Your task to perform on an android device: toggle location history Image 0: 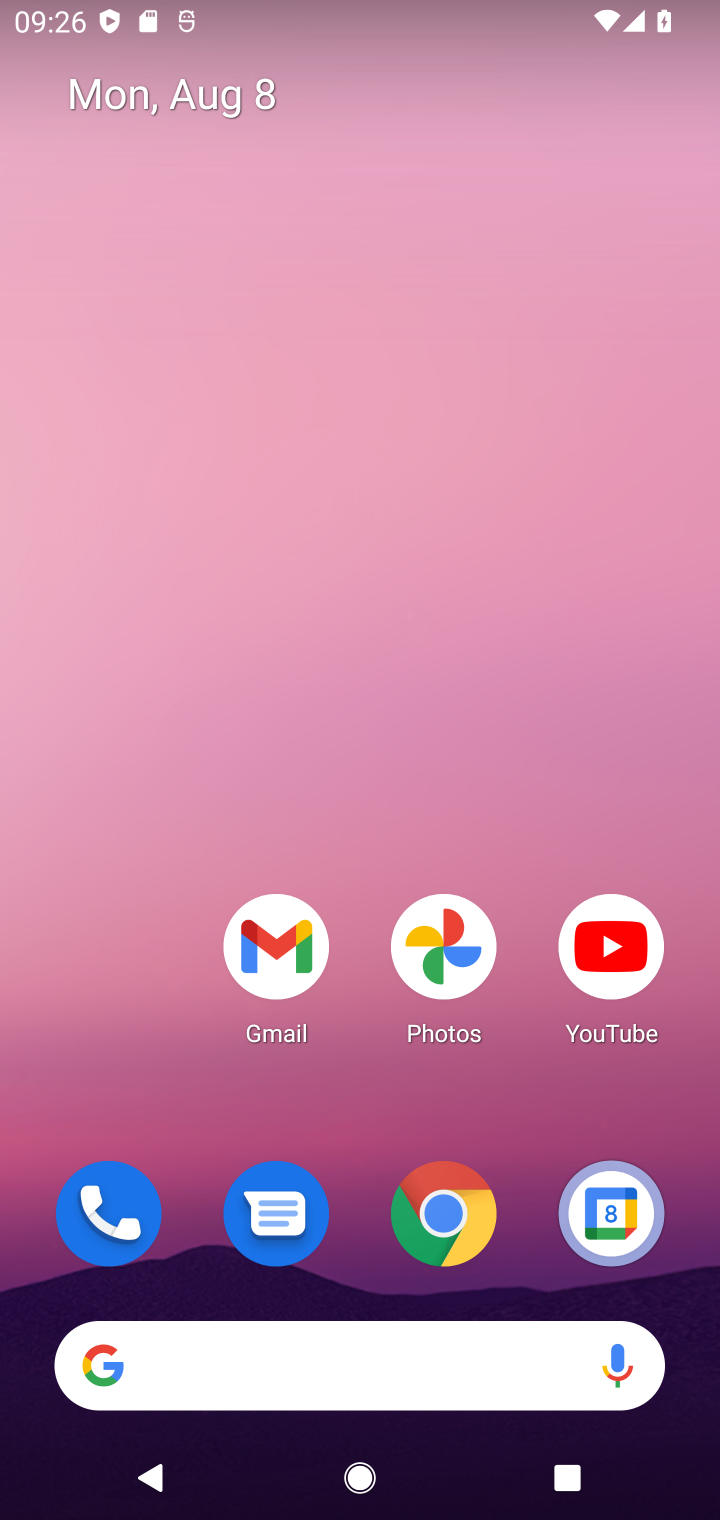
Step 0: drag from (415, 1084) to (272, 239)
Your task to perform on an android device: toggle location history Image 1: 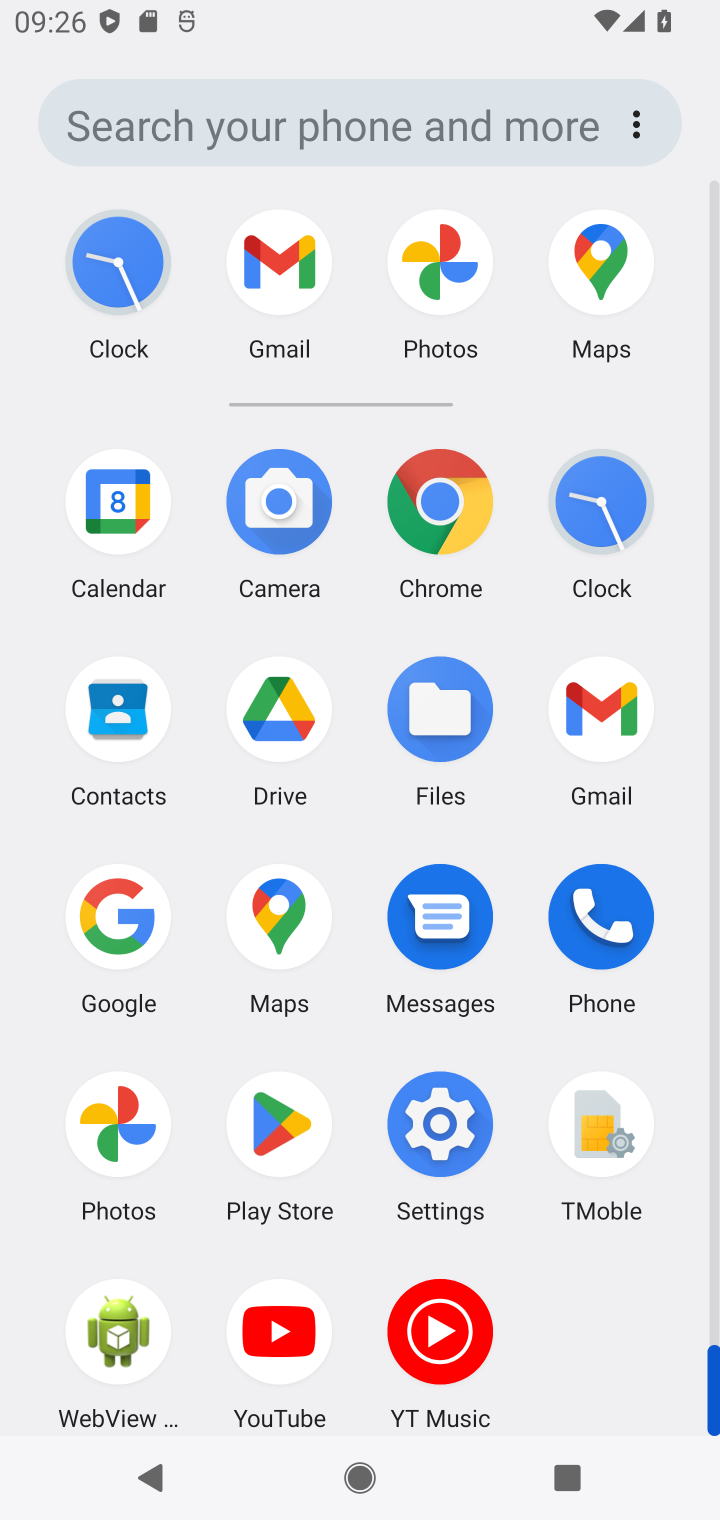
Step 1: click (472, 1142)
Your task to perform on an android device: toggle location history Image 2: 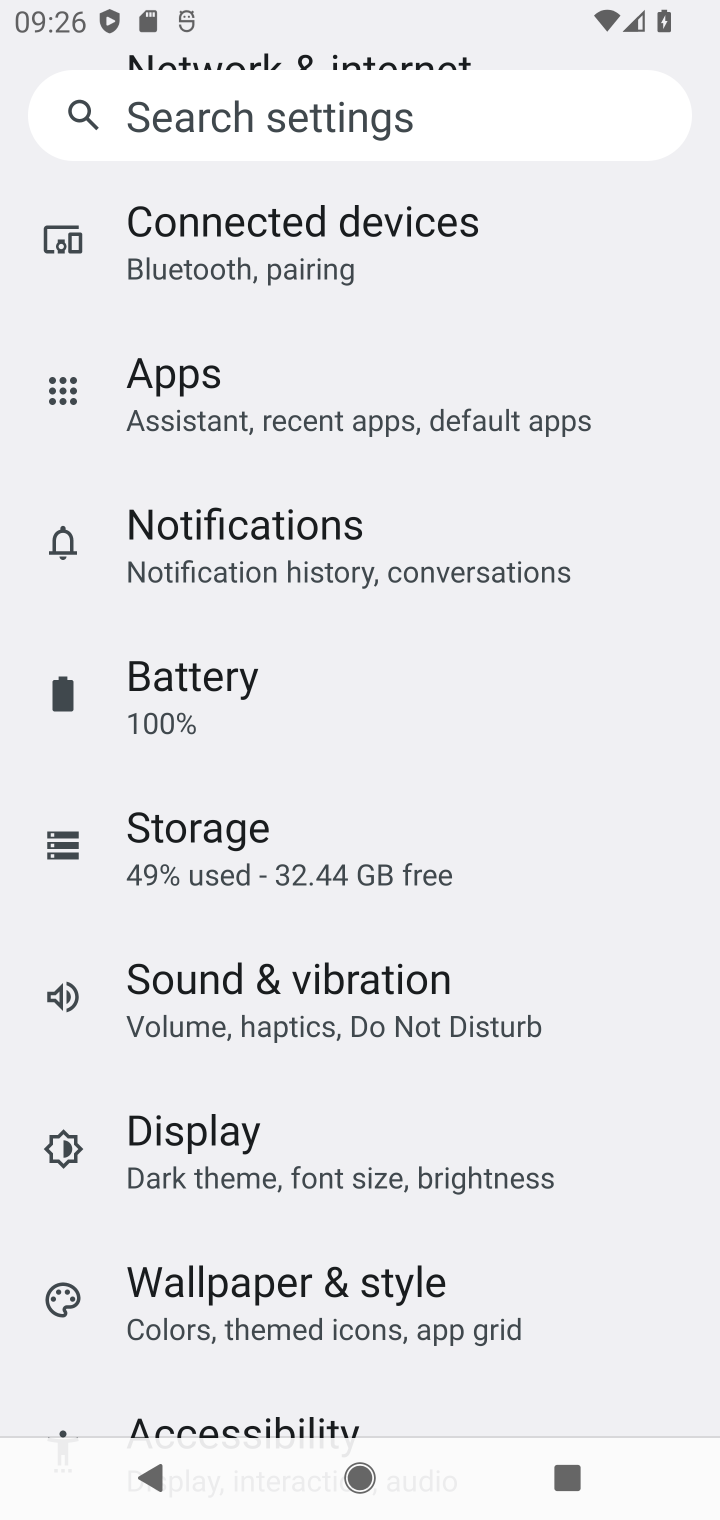
Step 2: drag from (282, 761) to (424, 131)
Your task to perform on an android device: toggle location history Image 3: 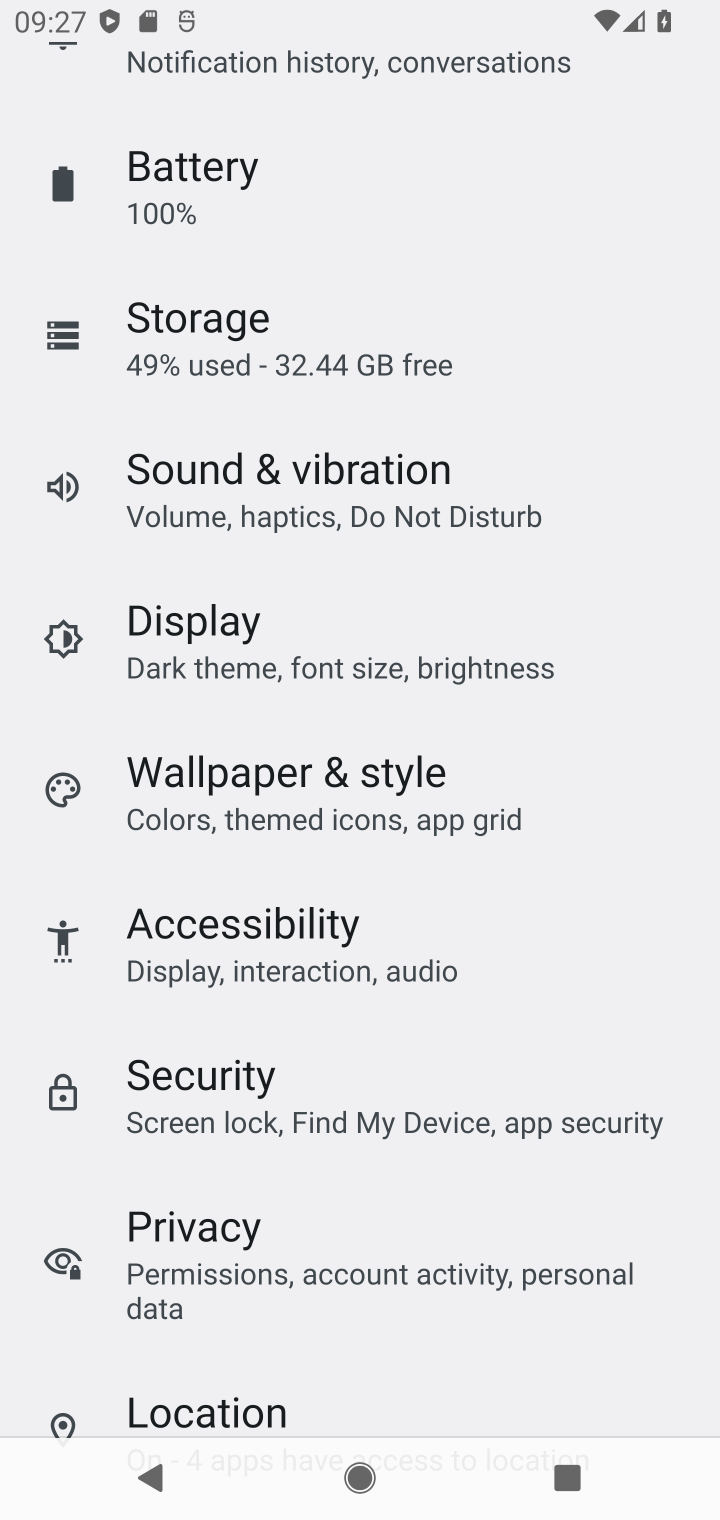
Step 3: drag from (326, 1167) to (434, 386)
Your task to perform on an android device: toggle location history Image 4: 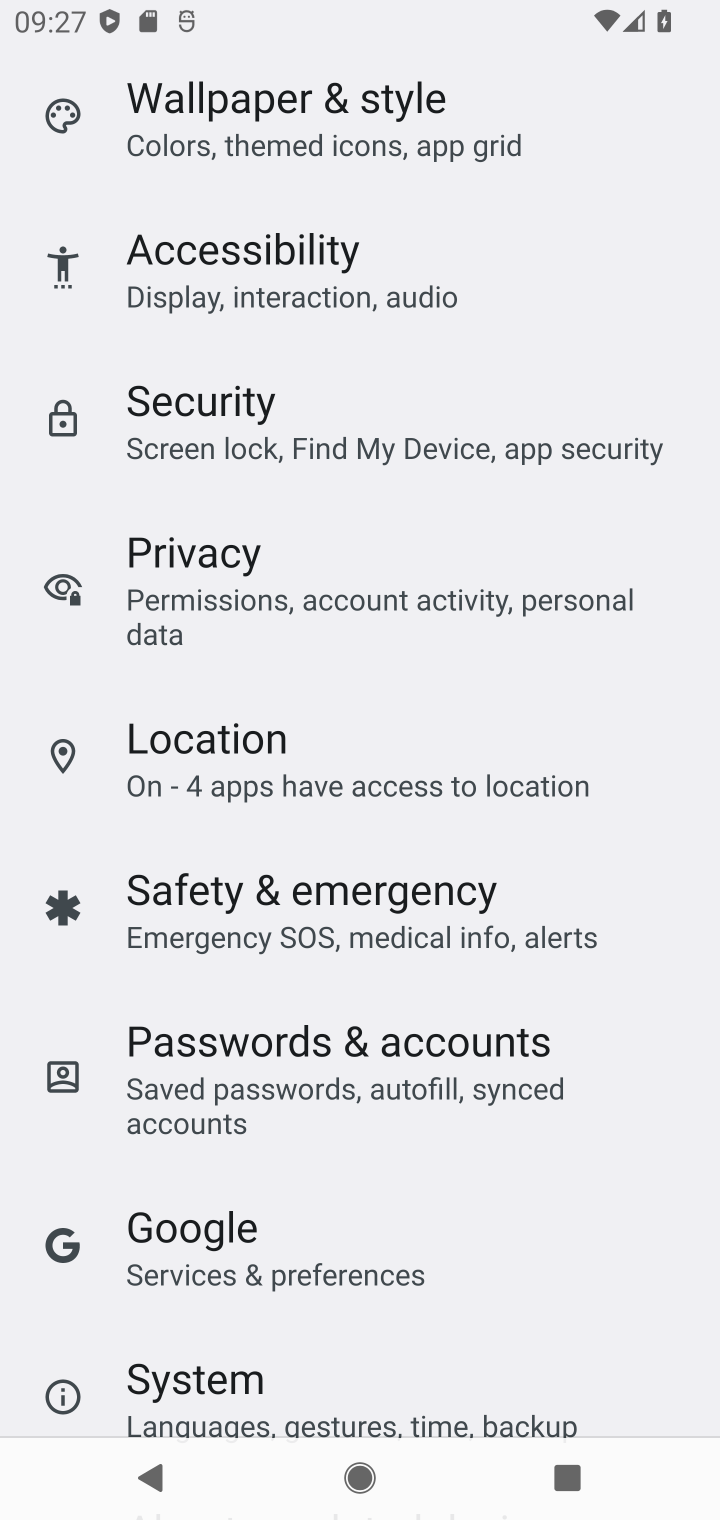
Step 4: click (314, 772)
Your task to perform on an android device: toggle location history Image 5: 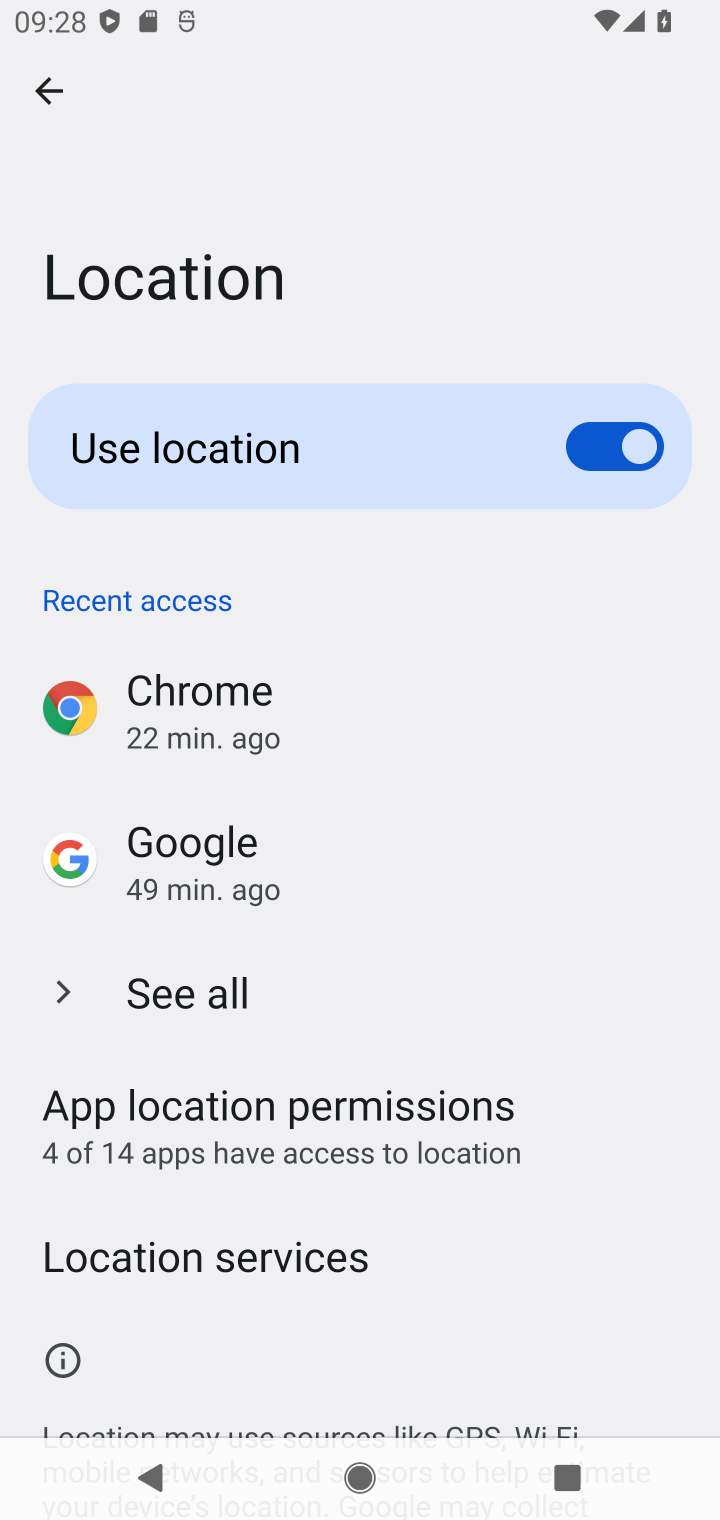
Step 5: drag from (215, 1166) to (235, 354)
Your task to perform on an android device: toggle location history Image 6: 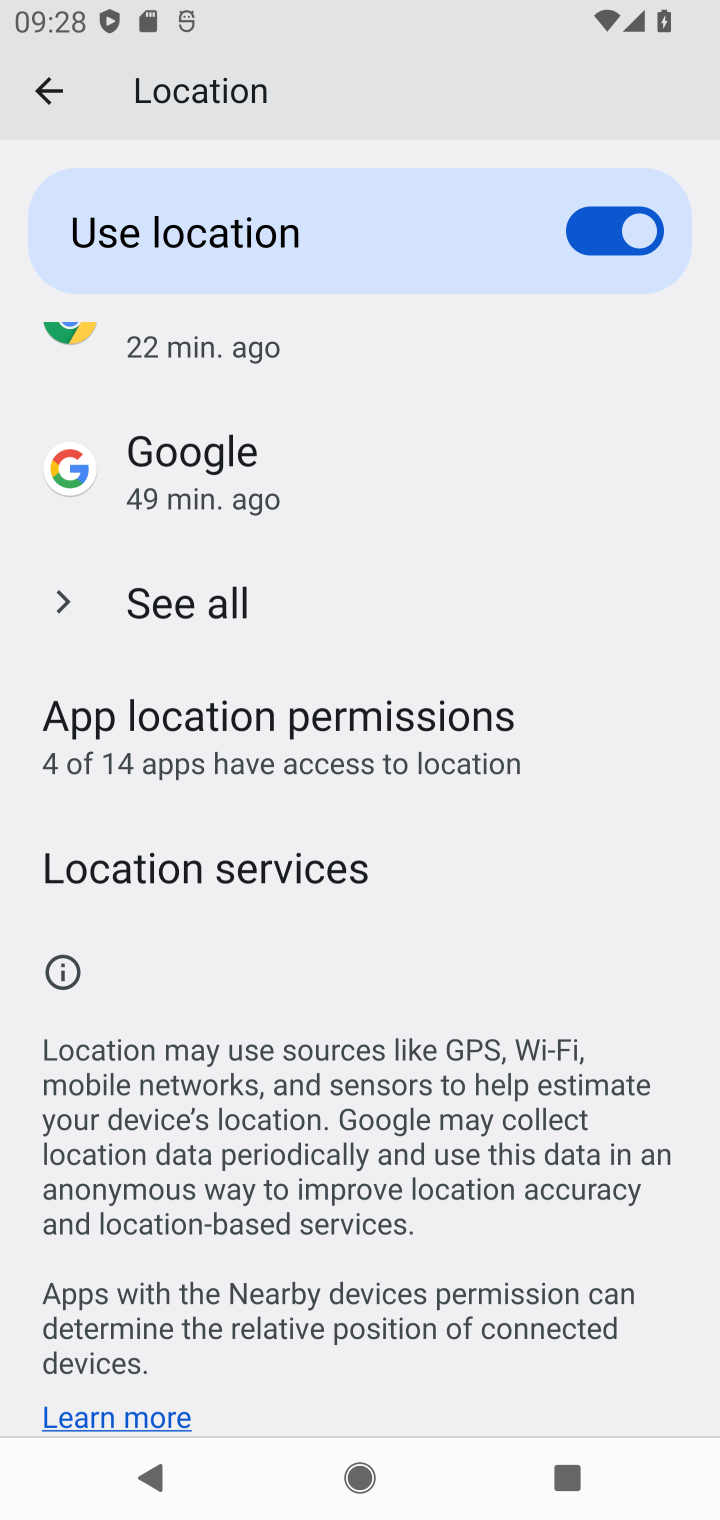
Step 6: click (307, 877)
Your task to perform on an android device: toggle location history Image 7: 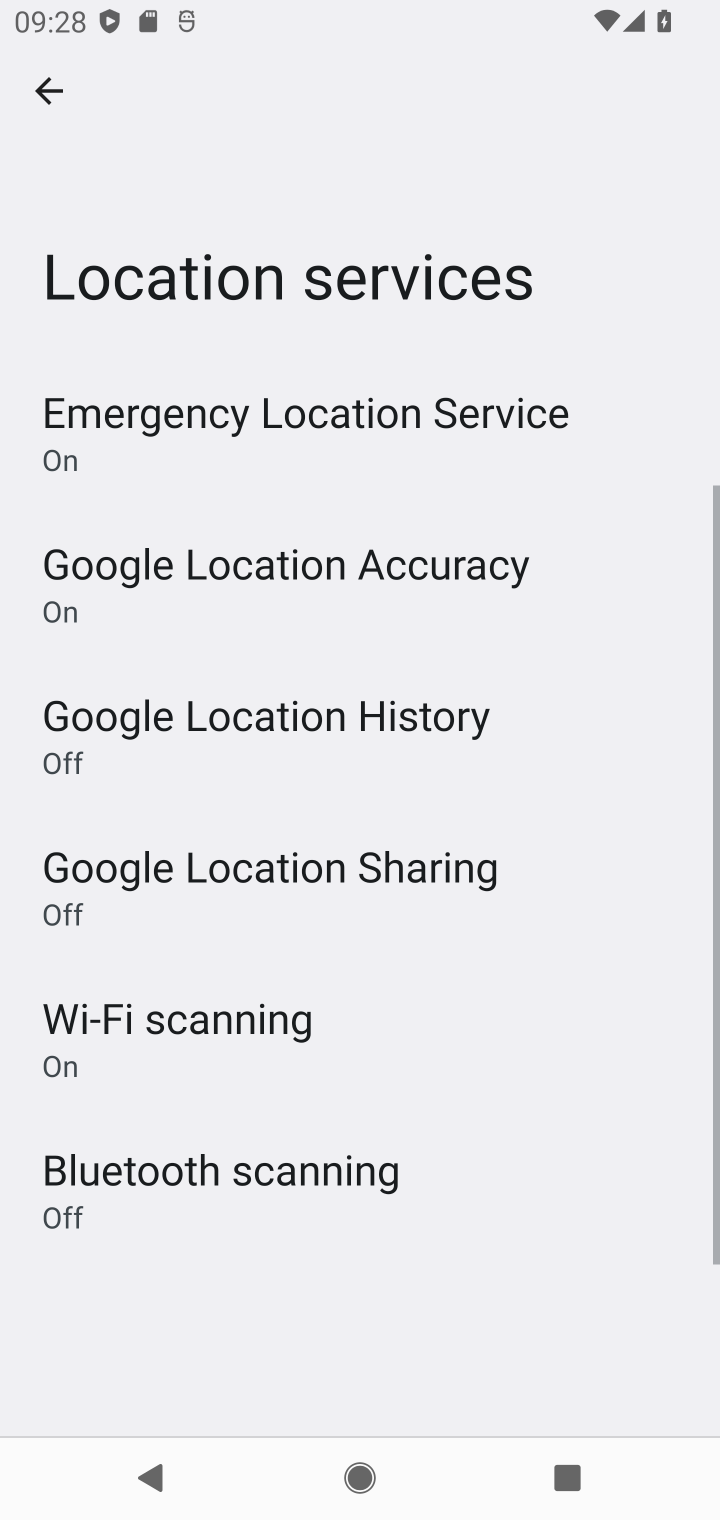
Step 7: click (339, 705)
Your task to perform on an android device: toggle location history Image 8: 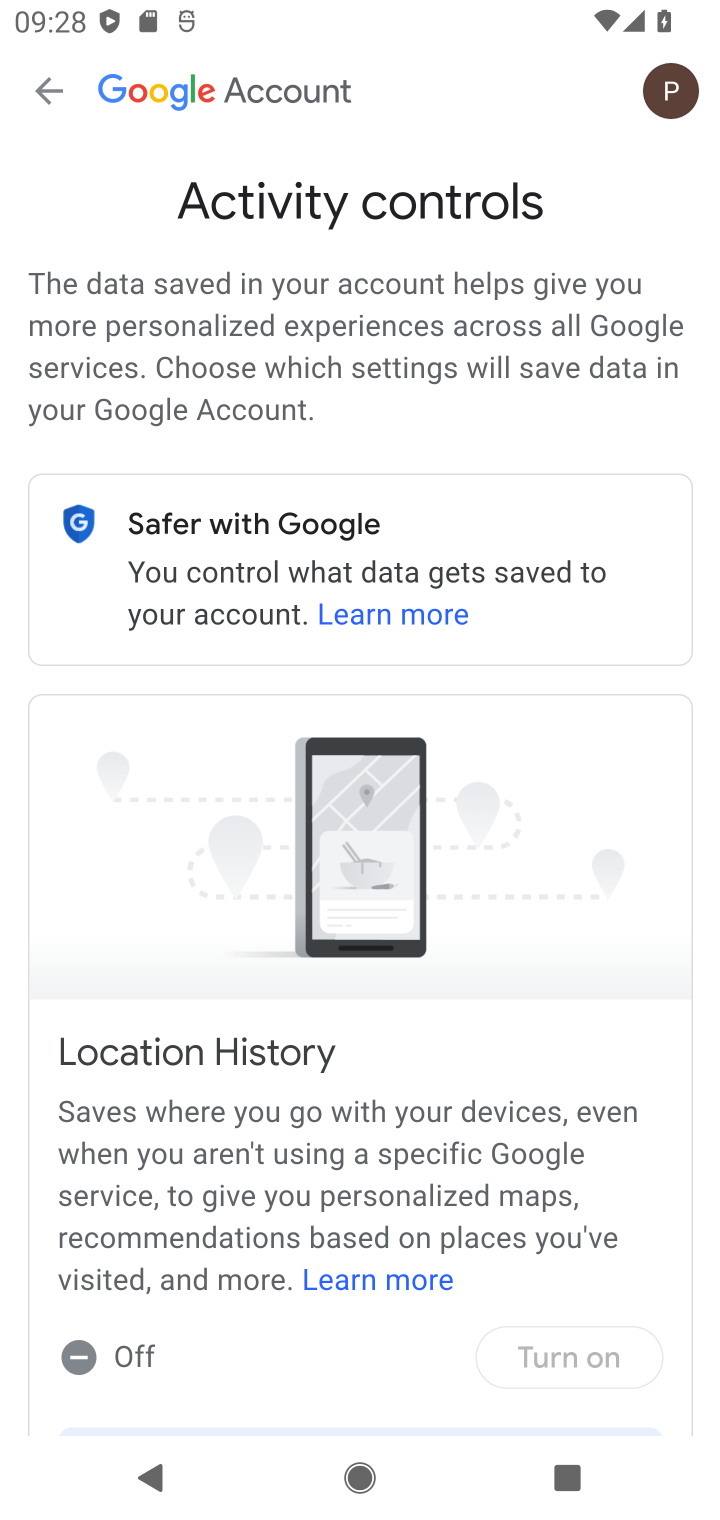
Step 8: drag from (461, 1316) to (468, 491)
Your task to perform on an android device: toggle location history Image 9: 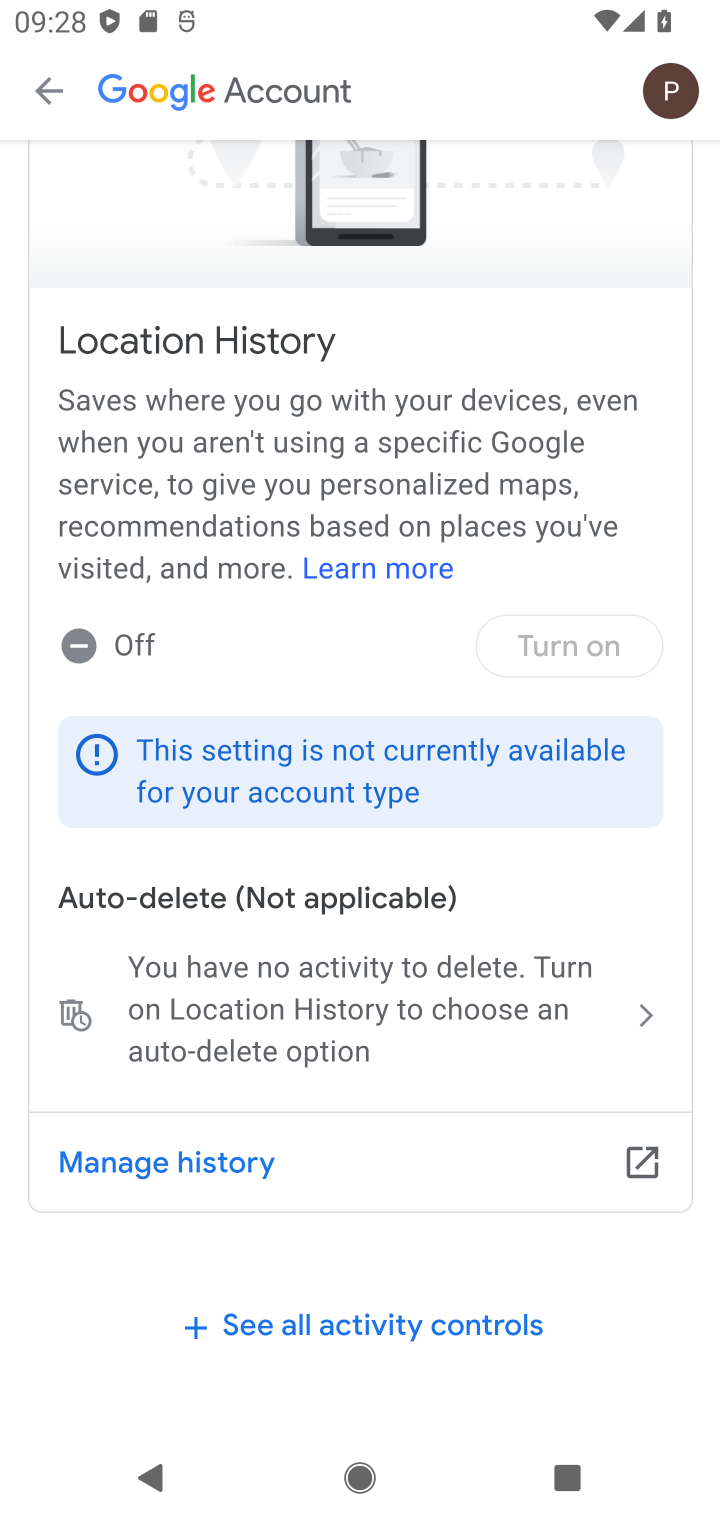
Step 9: click (487, 722)
Your task to perform on an android device: toggle location history Image 10: 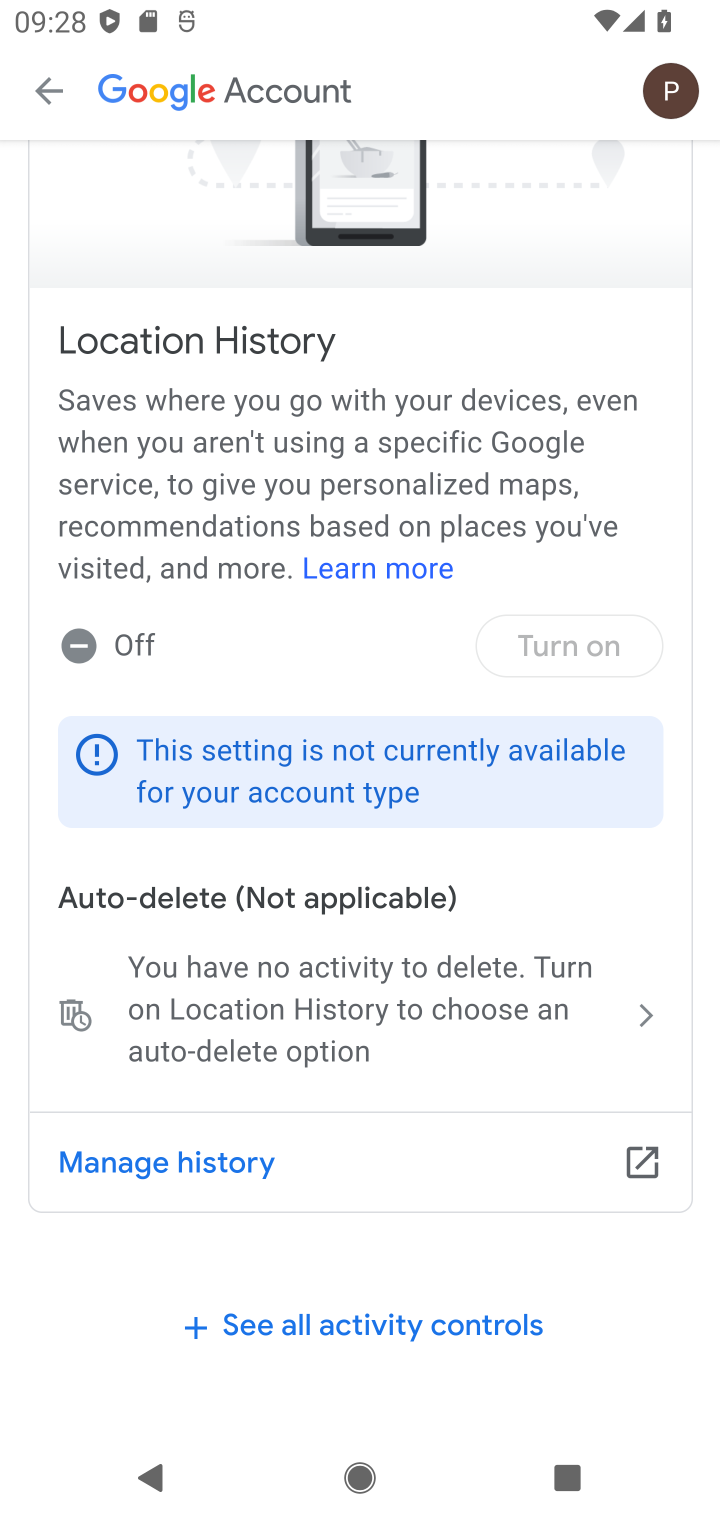
Step 10: click (631, 1160)
Your task to perform on an android device: toggle location history Image 11: 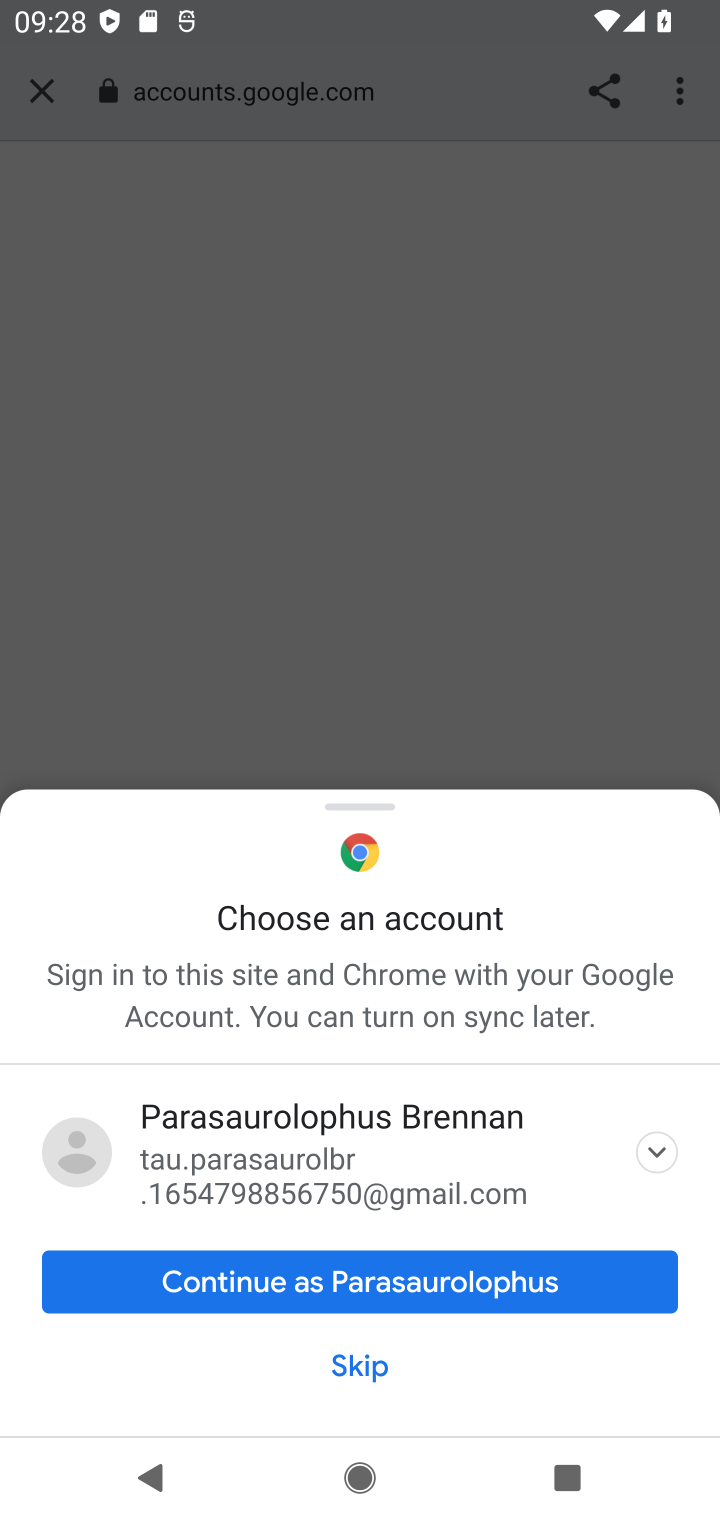
Step 11: task complete